Your task to perform on an android device: empty trash in google photos Image 0: 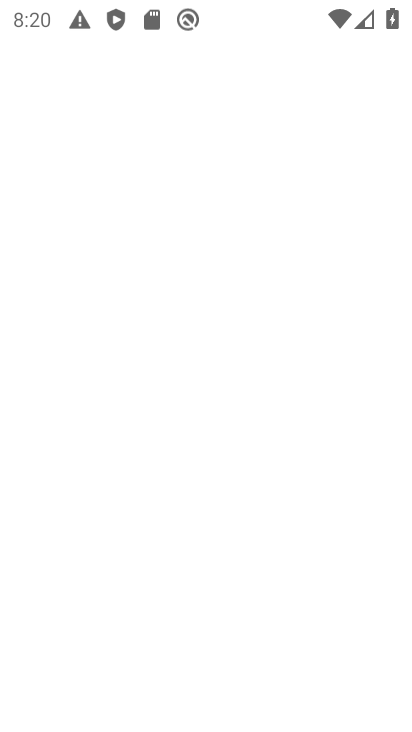
Step 0: press home button
Your task to perform on an android device: empty trash in google photos Image 1: 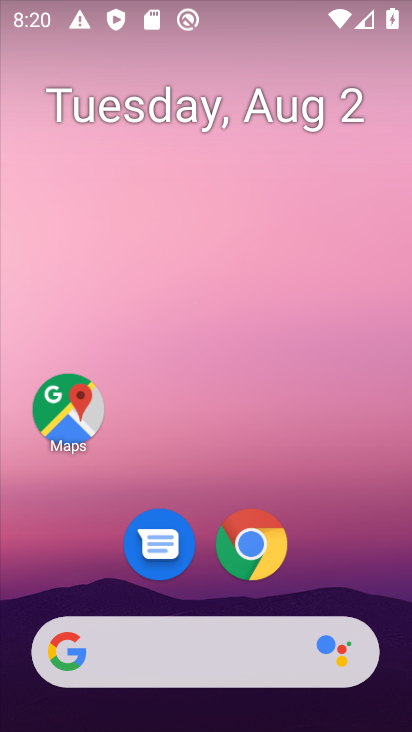
Step 1: drag from (183, 642) to (327, 118)
Your task to perform on an android device: empty trash in google photos Image 2: 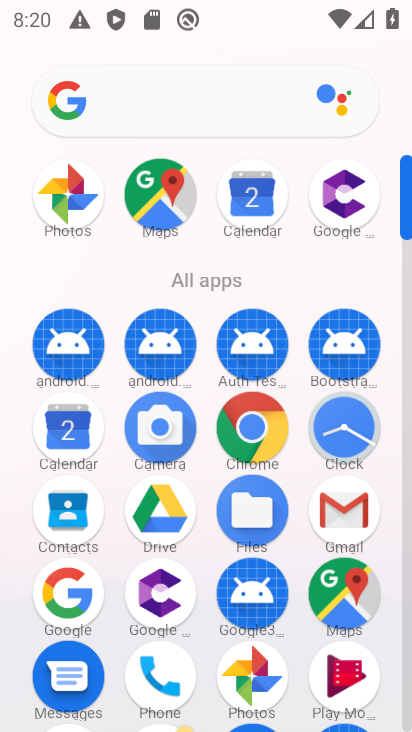
Step 2: click (65, 195)
Your task to perform on an android device: empty trash in google photos Image 3: 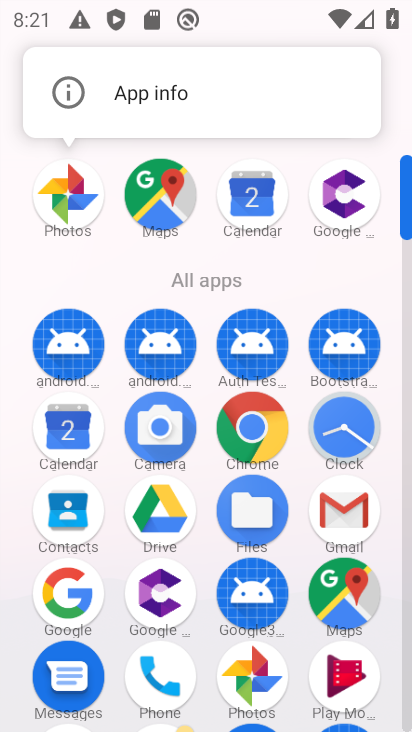
Step 3: click (65, 196)
Your task to perform on an android device: empty trash in google photos Image 4: 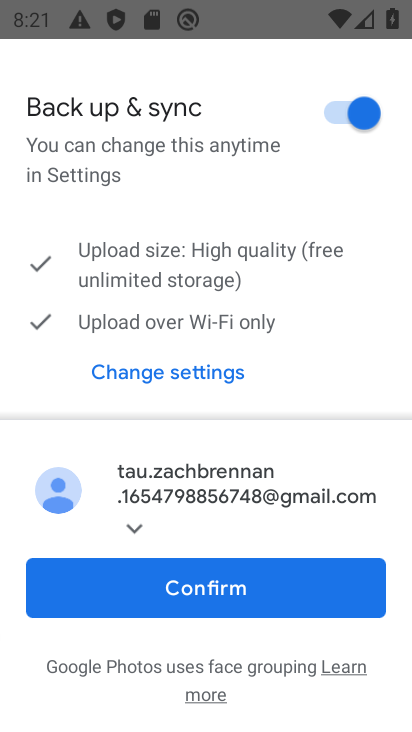
Step 4: click (201, 587)
Your task to perform on an android device: empty trash in google photos Image 5: 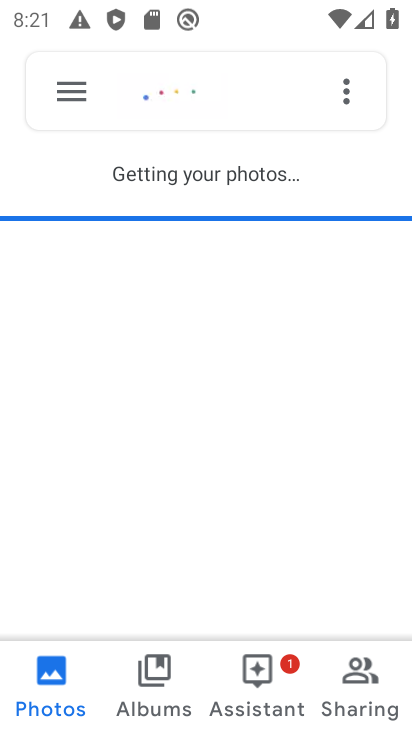
Step 5: click (74, 86)
Your task to perform on an android device: empty trash in google photos Image 6: 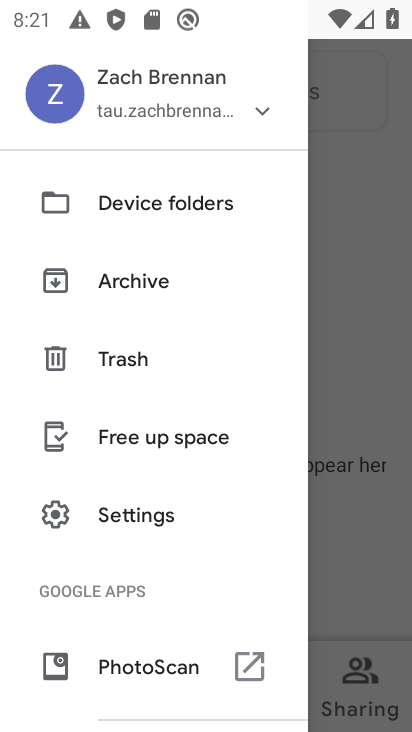
Step 6: click (131, 362)
Your task to perform on an android device: empty trash in google photos Image 7: 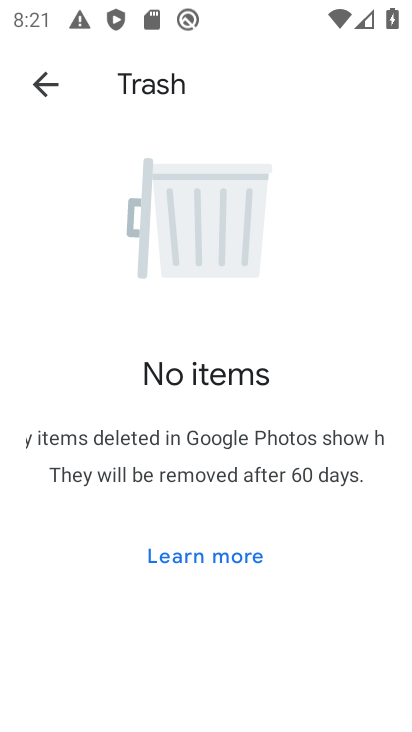
Step 7: task complete